Your task to perform on an android device: Open Chrome and go to settings Image 0: 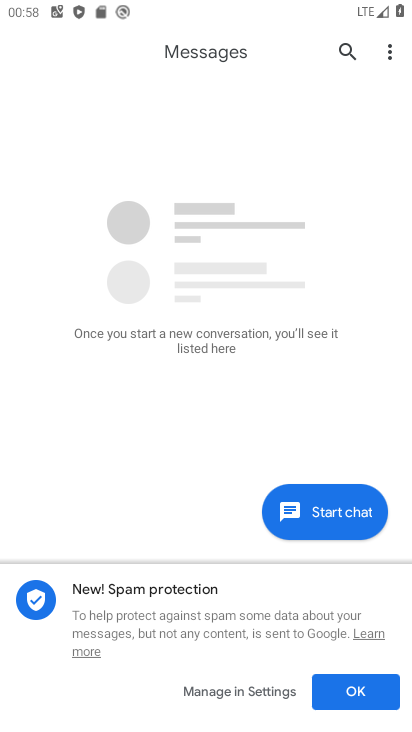
Step 0: press home button
Your task to perform on an android device: Open Chrome and go to settings Image 1: 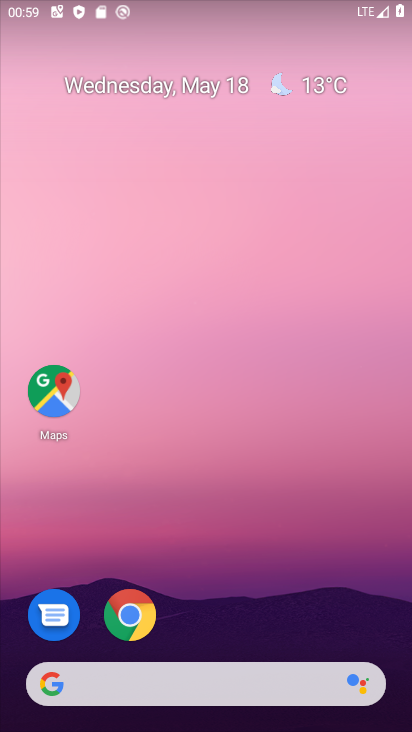
Step 1: click (133, 620)
Your task to perform on an android device: Open Chrome and go to settings Image 2: 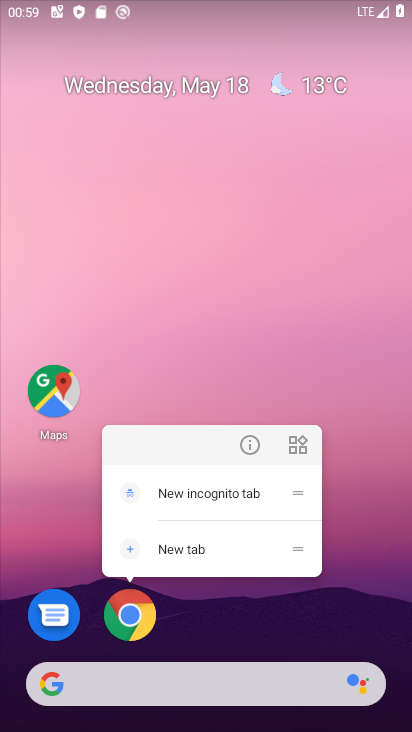
Step 2: click (141, 609)
Your task to perform on an android device: Open Chrome and go to settings Image 3: 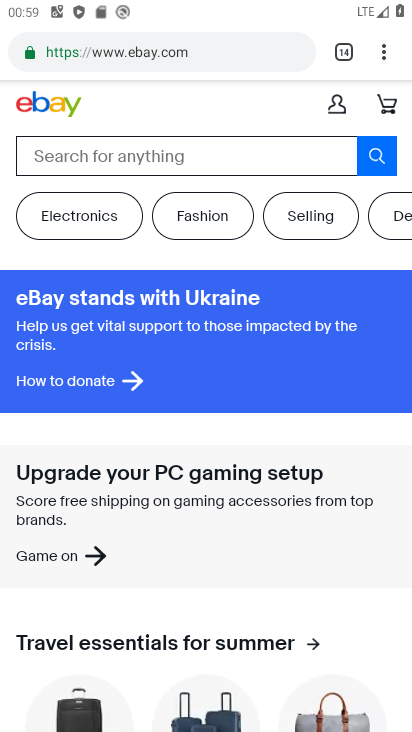
Step 3: click (385, 56)
Your task to perform on an android device: Open Chrome and go to settings Image 4: 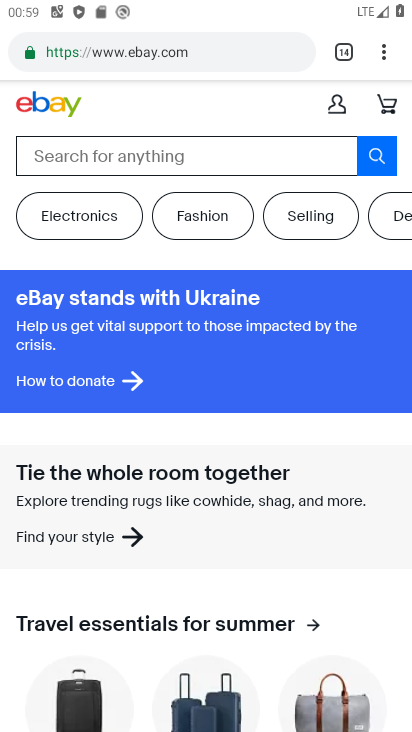
Step 4: task complete